Your task to perform on an android device: Turn on the flashlight Image 0: 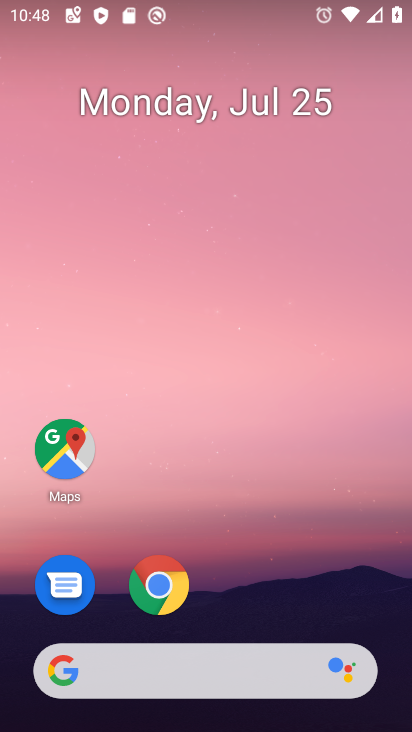
Step 0: drag from (204, 627) to (127, 130)
Your task to perform on an android device: Turn on the flashlight Image 1: 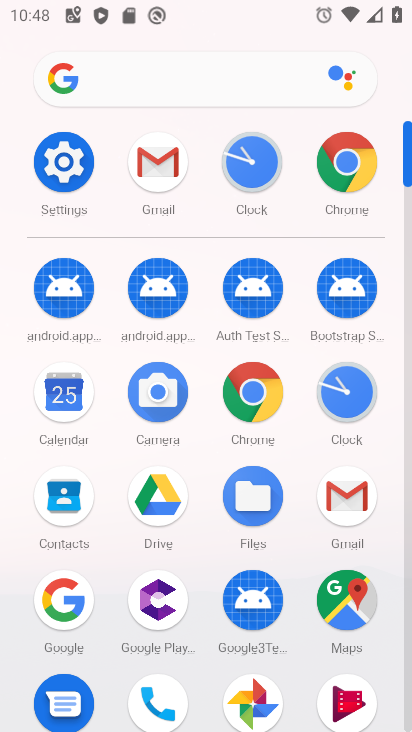
Step 1: click (39, 173)
Your task to perform on an android device: Turn on the flashlight Image 2: 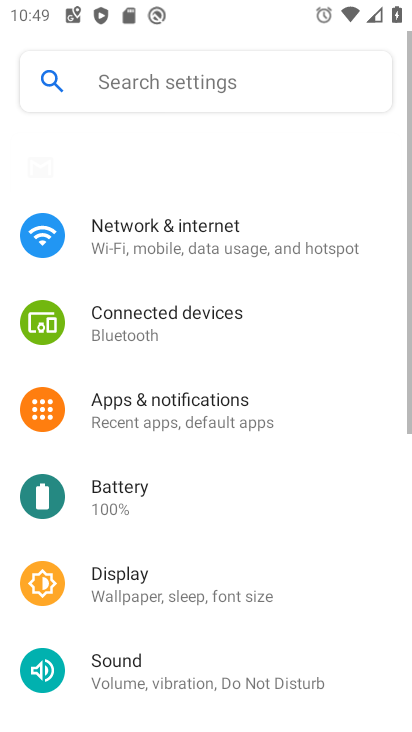
Step 2: task complete